Your task to perform on an android device: turn on showing notifications on the lock screen Image 0: 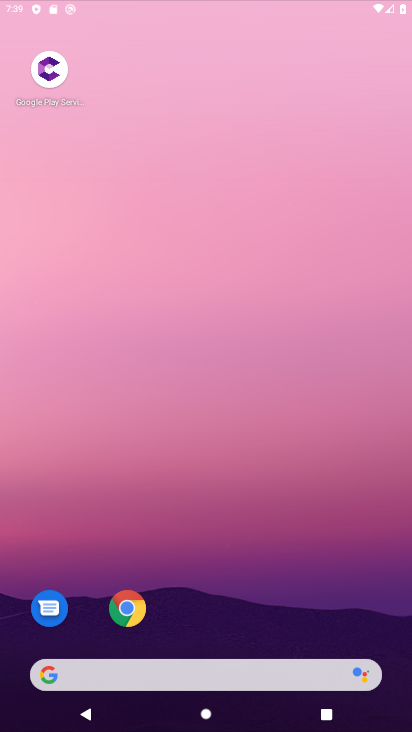
Step 0: click (262, 21)
Your task to perform on an android device: turn on showing notifications on the lock screen Image 1: 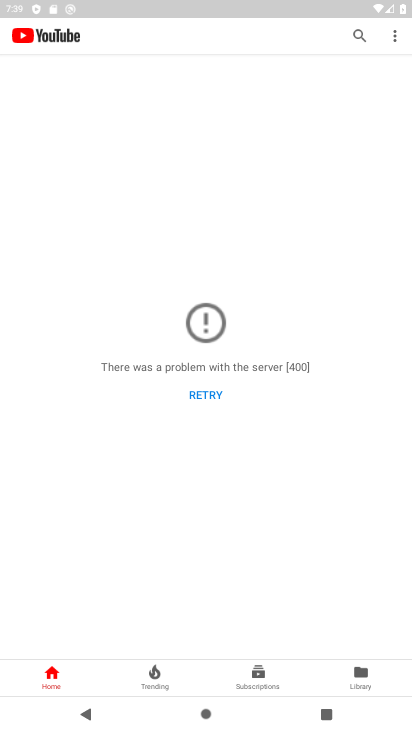
Step 1: press home button
Your task to perform on an android device: turn on showing notifications on the lock screen Image 2: 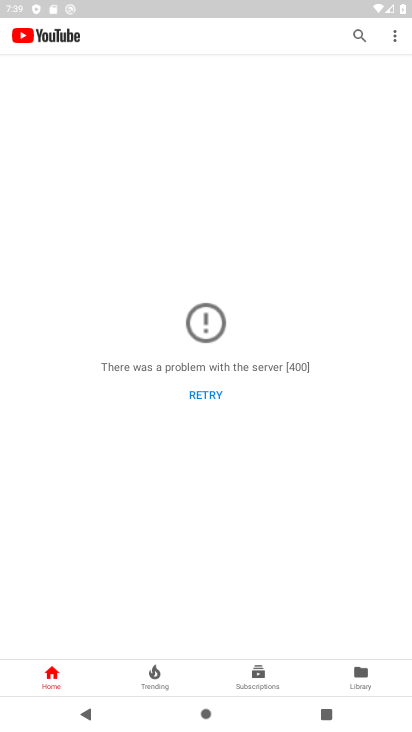
Step 2: press home button
Your task to perform on an android device: turn on showing notifications on the lock screen Image 3: 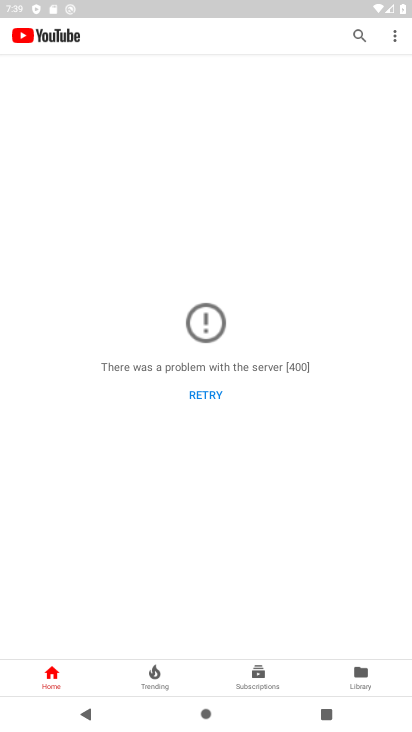
Step 3: click (188, 165)
Your task to perform on an android device: turn on showing notifications on the lock screen Image 4: 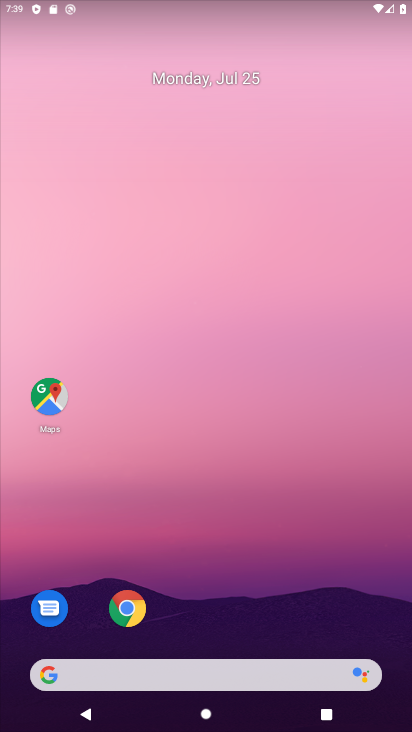
Step 4: drag from (189, 631) to (243, 4)
Your task to perform on an android device: turn on showing notifications on the lock screen Image 5: 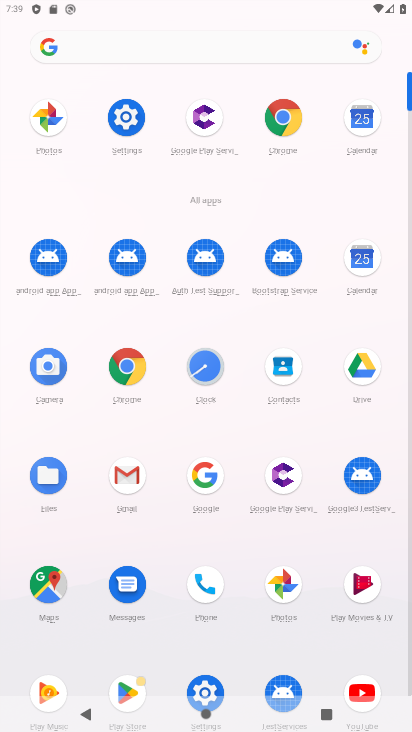
Step 5: click (206, 684)
Your task to perform on an android device: turn on showing notifications on the lock screen Image 6: 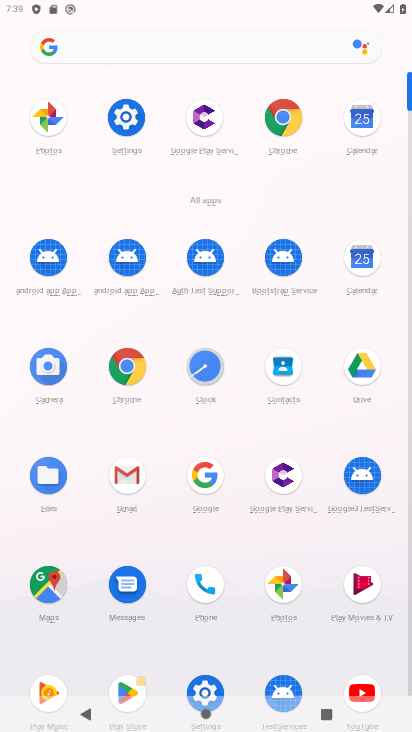
Step 6: click (206, 684)
Your task to perform on an android device: turn on showing notifications on the lock screen Image 7: 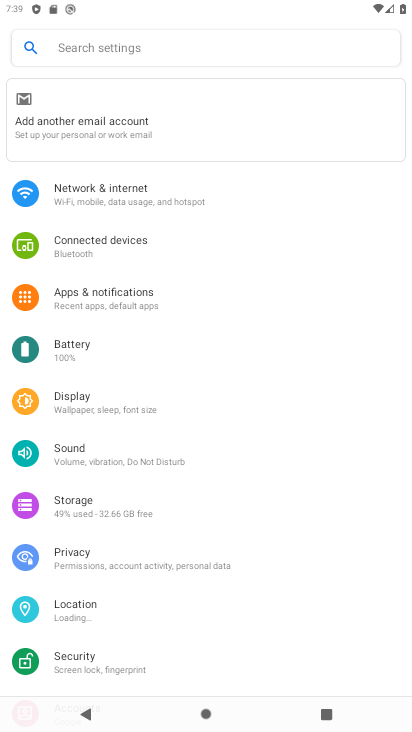
Step 7: click (92, 300)
Your task to perform on an android device: turn on showing notifications on the lock screen Image 8: 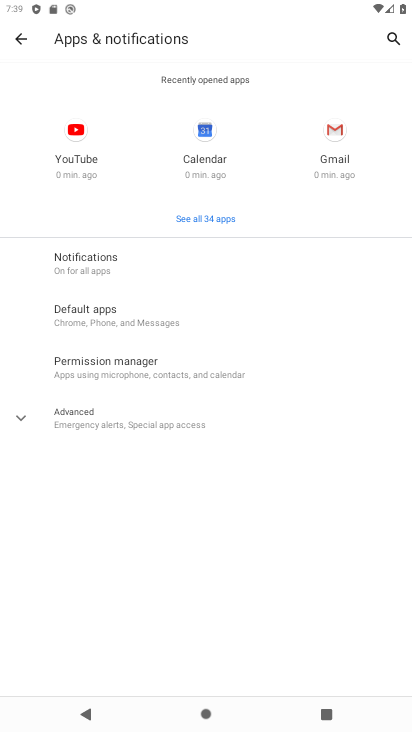
Step 8: click (140, 269)
Your task to perform on an android device: turn on showing notifications on the lock screen Image 9: 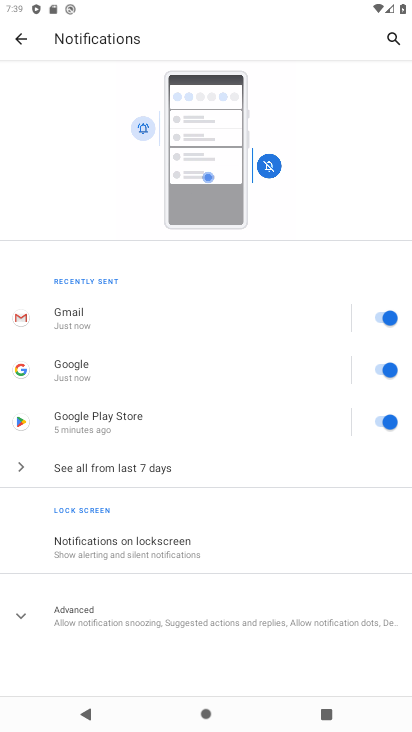
Step 9: click (193, 544)
Your task to perform on an android device: turn on showing notifications on the lock screen Image 10: 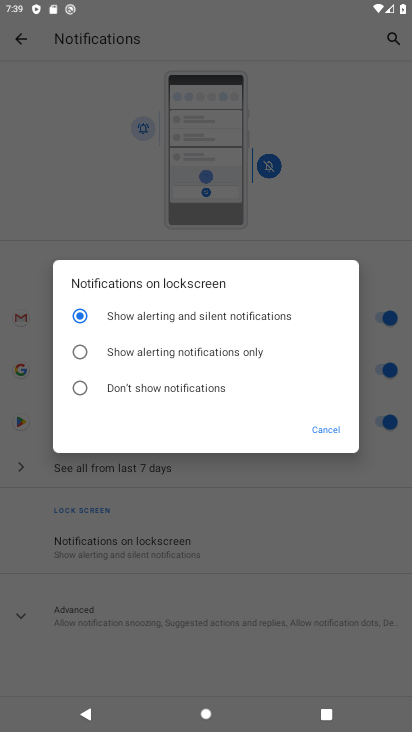
Step 10: click (104, 350)
Your task to perform on an android device: turn on showing notifications on the lock screen Image 11: 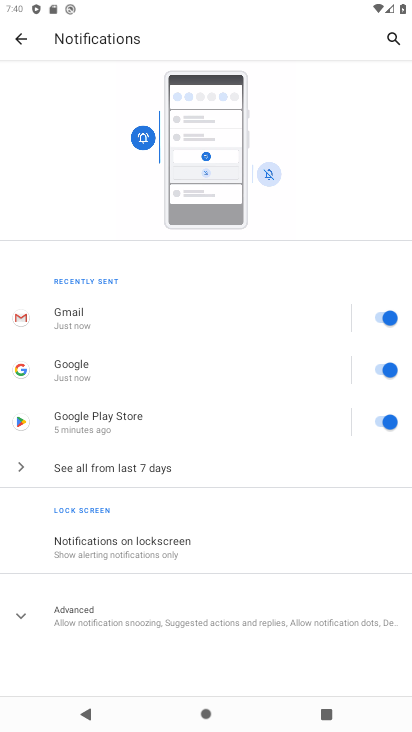
Step 11: task complete